Your task to perform on an android device: Search for a custom made wallet Image 0: 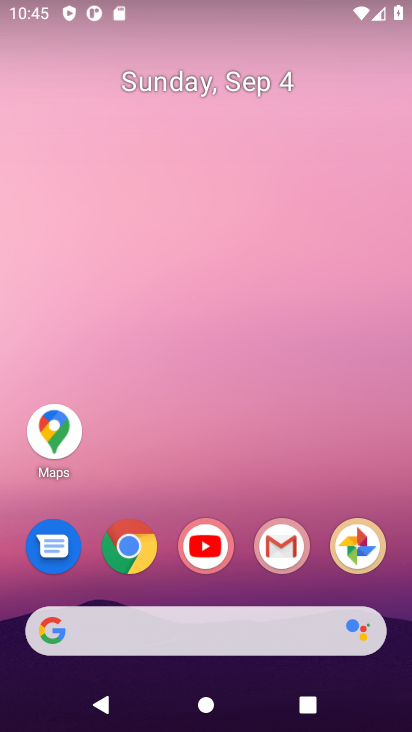
Step 0: click (118, 561)
Your task to perform on an android device: Search for a custom made wallet Image 1: 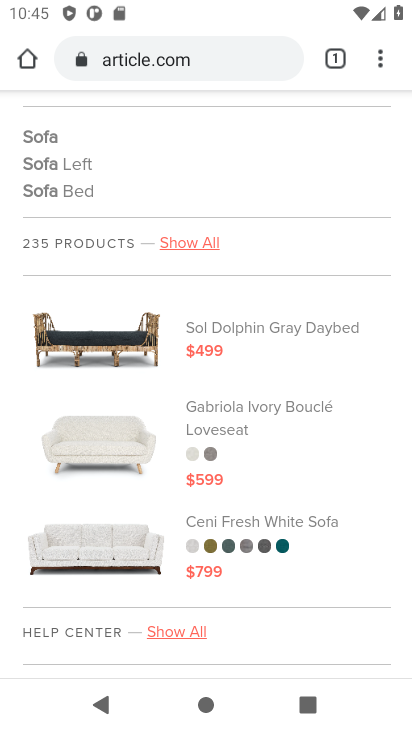
Step 1: click (161, 52)
Your task to perform on an android device: Search for a custom made wallet Image 2: 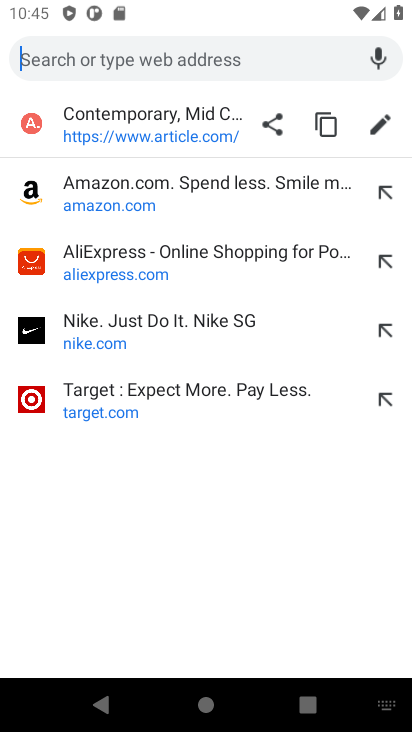
Step 2: type "custom made wallet"
Your task to perform on an android device: Search for a custom made wallet Image 3: 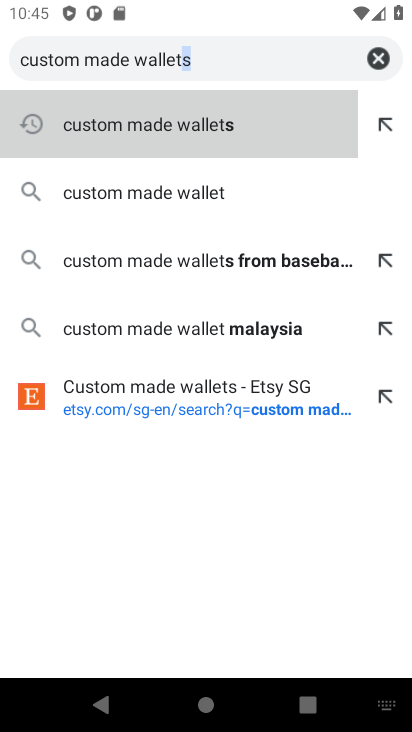
Step 3: click (151, 125)
Your task to perform on an android device: Search for a custom made wallet Image 4: 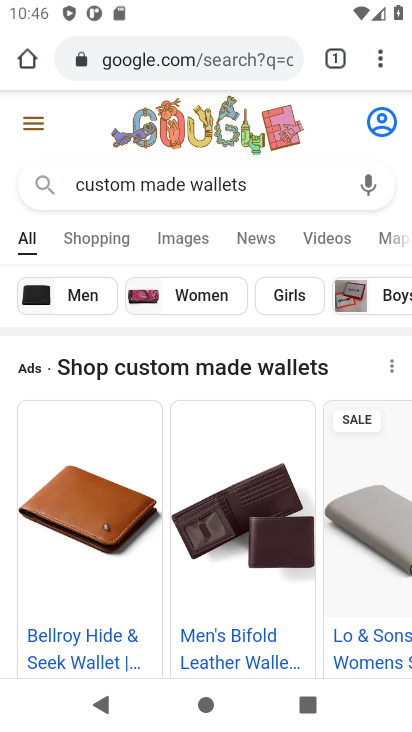
Step 4: drag from (176, 466) to (183, 261)
Your task to perform on an android device: Search for a custom made wallet Image 5: 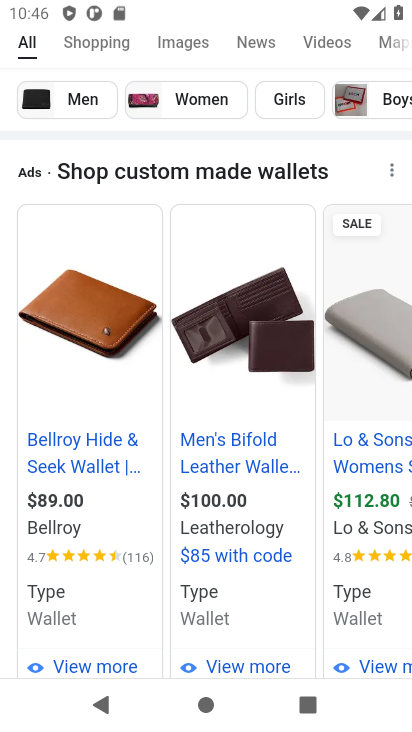
Step 5: drag from (283, 521) to (6, 505)
Your task to perform on an android device: Search for a custom made wallet Image 6: 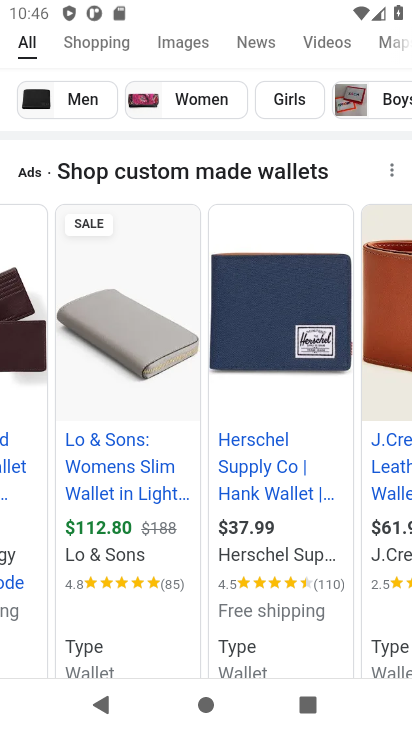
Step 6: drag from (208, 489) to (1, 496)
Your task to perform on an android device: Search for a custom made wallet Image 7: 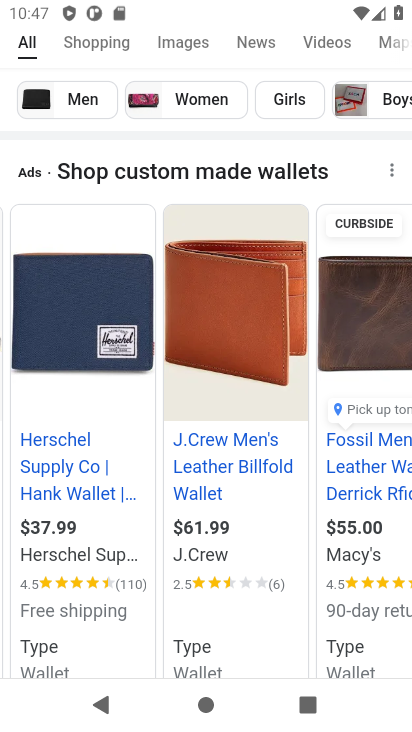
Step 7: drag from (212, 558) to (221, 211)
Your task to perform on an android device: Search for a custom made wallet Image 8: 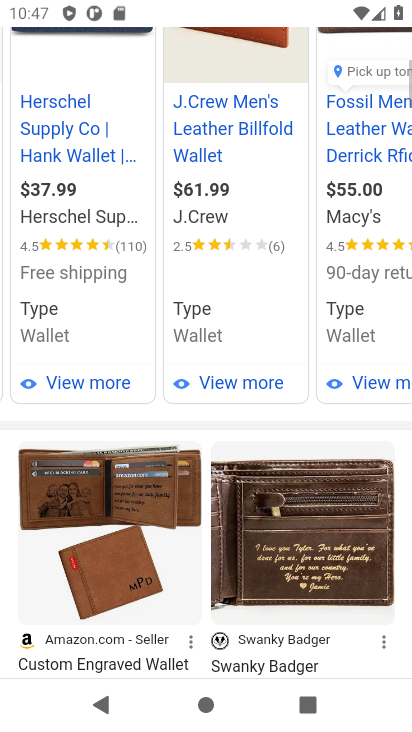
Step 8: drag from (179, 380) to (181, 345)
Your task to perform on an android device: Search for a custom made wallet Image 9: 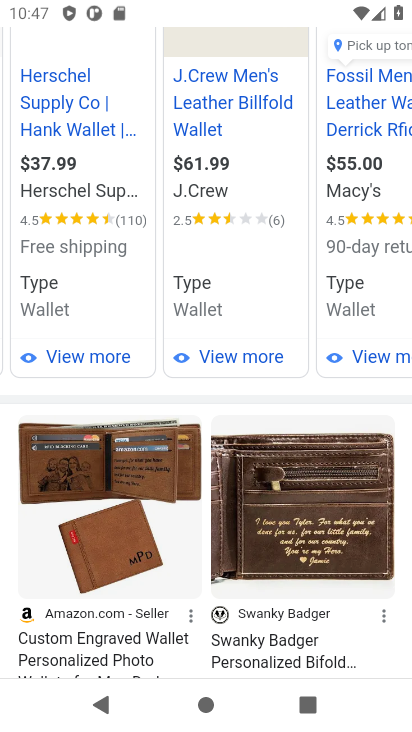
Step 9: click (238, 93)
Your task to perform on an android device: Search for a custom made wallet Image 10: 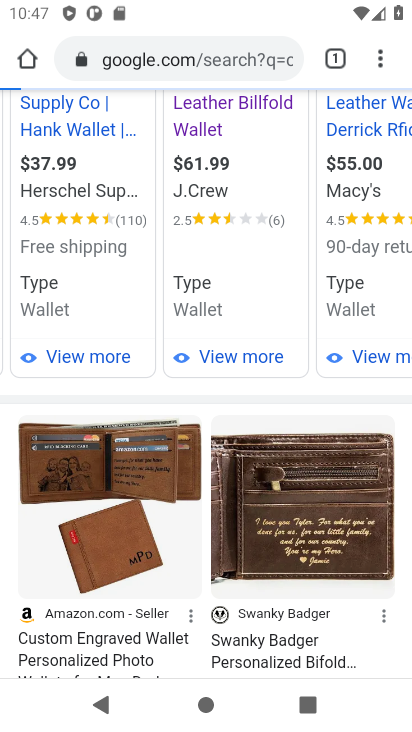
Step 10: click (232, 410)
Your task to perform on an android device: Search for a custom made wallet Image 11: 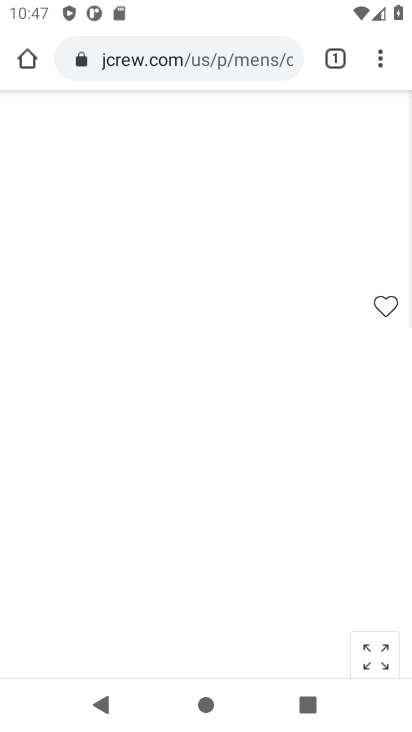
Step 11: click (211, 142)
Your task to perform on an android device: Search for a custom made wallet Image 12: 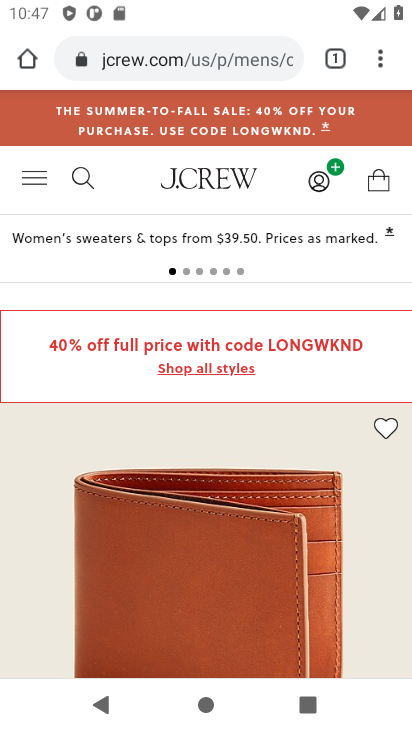
Step 12: task complete